Your task to perform on an android device: When is my next meeting? Image 0: 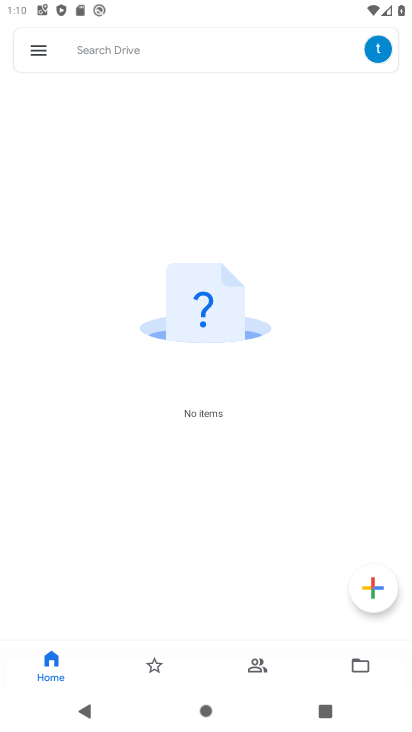
Step 0: press home button
Your task to perform on an android device: When is my next meeting? Image 1: 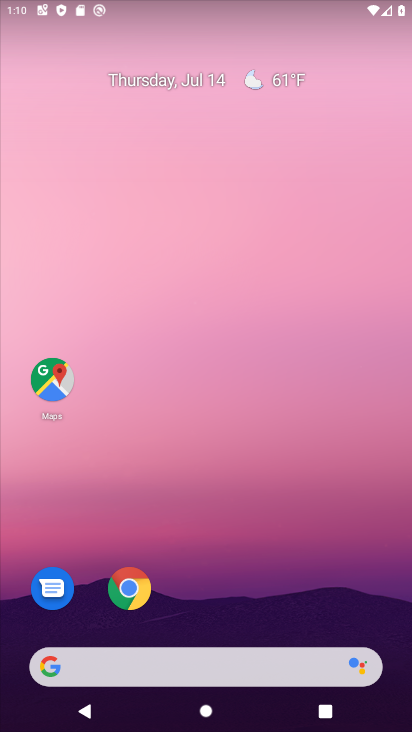
Step 1: drag from (218, 597) to (223, 236)
Your task to perform on an android device: When is my next meeting? Image 2: 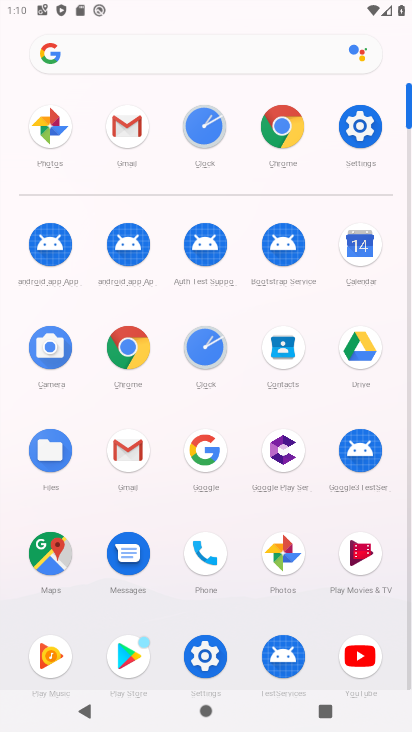
Step 2: click (363, 247)
Your task to perform on an android device: When is my next meeting? Image 3: 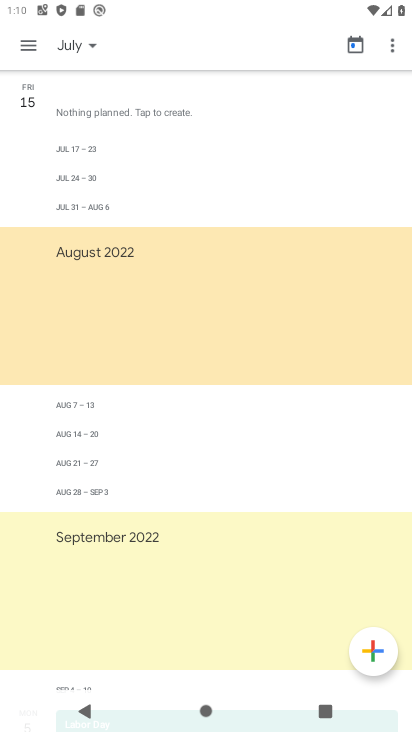
Step 3: click (15, 42)
Your task to perform on an android device: When is my next meeting? Image 4: 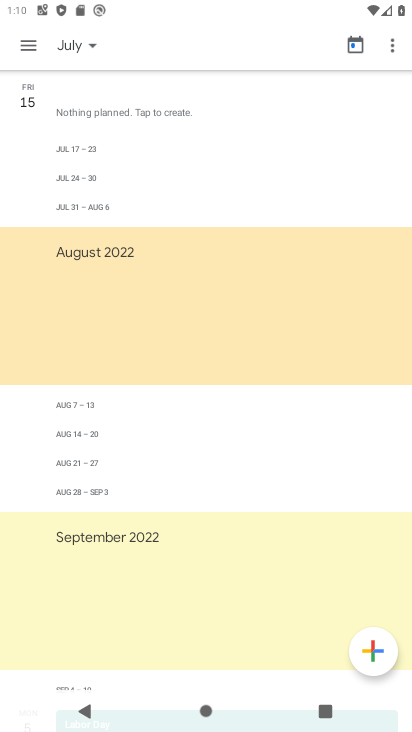
Step 4: click (25, 40)
Your task to perform on an android device: When is my next meeting? Image 5: 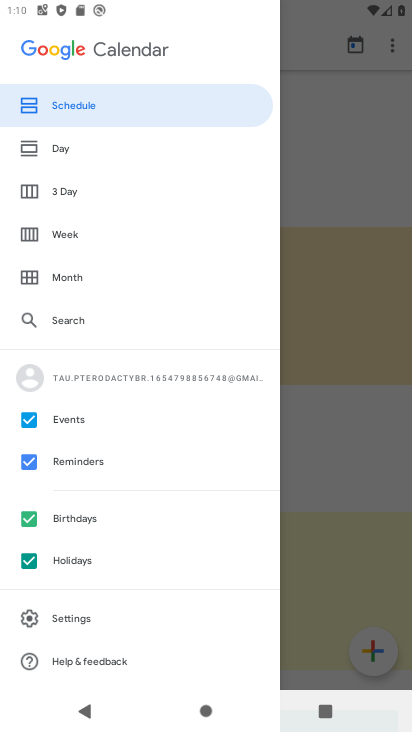
Step 5: click (90, 268)
Your task to perform on an android device: When is my next meeting? Image 6: 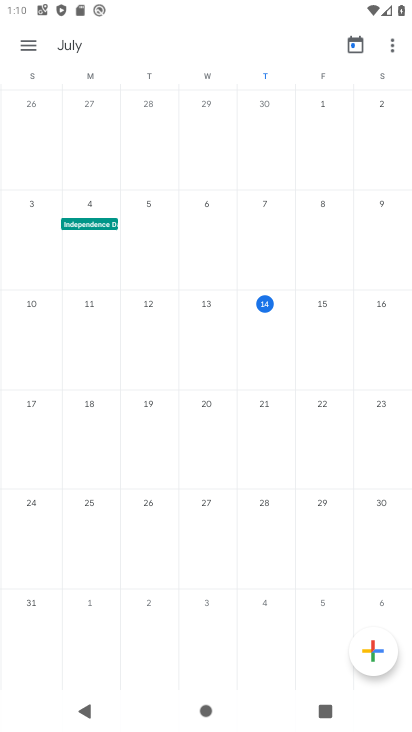
Step 6: click (332, 315)
Your task to perform on an android device: When is my next meeting? Image 7: 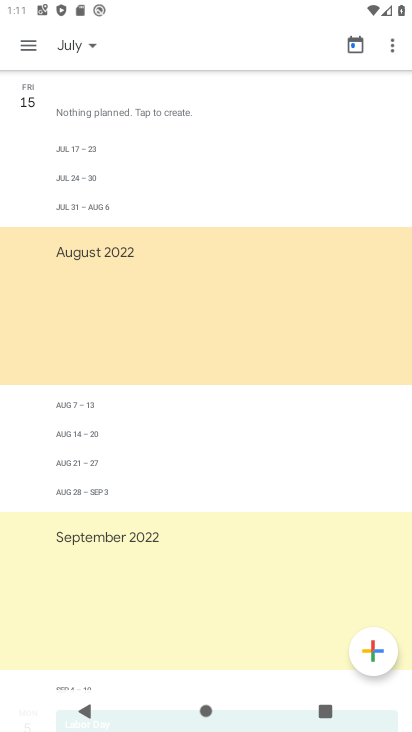
Step 7: task complete